Your task to perform on an android device: add a label to a message in the gmail app Image 0: 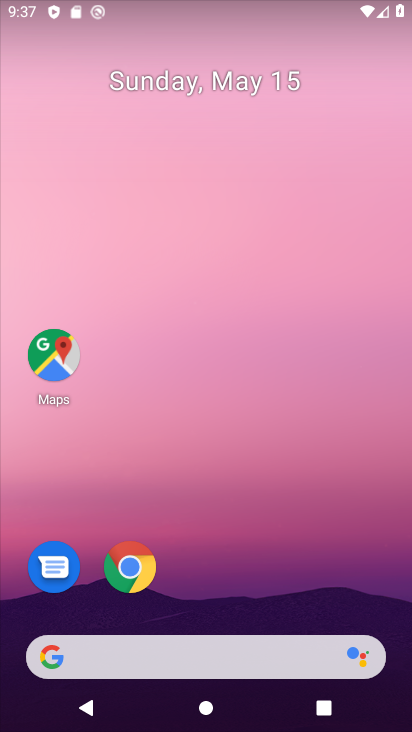
Step 0: press home button
Your task to perform on an android device: add a label to a message in the gmail app Image 1: 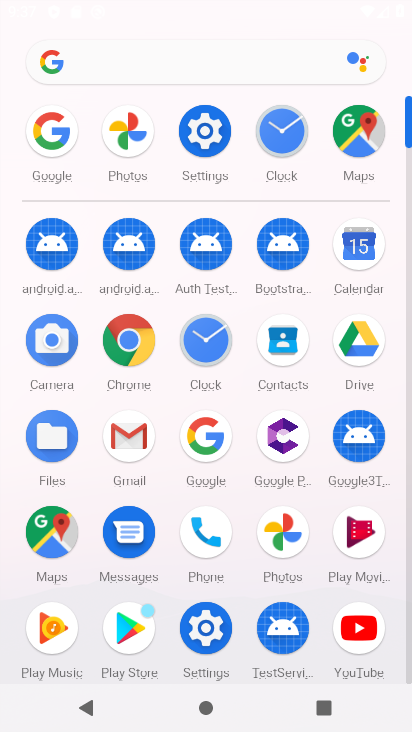
Step 1: drag from (273, 599) to (231, 94)
Your task to perform on an android device: add a label to a message in the gmail app Image 2: 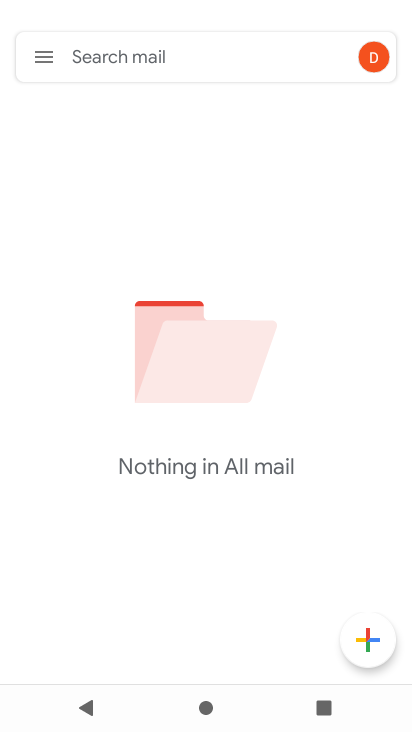
Step 2: click (128, 128)
Your task to perform on an android device: add a label to a message in the gmail app Image 3: 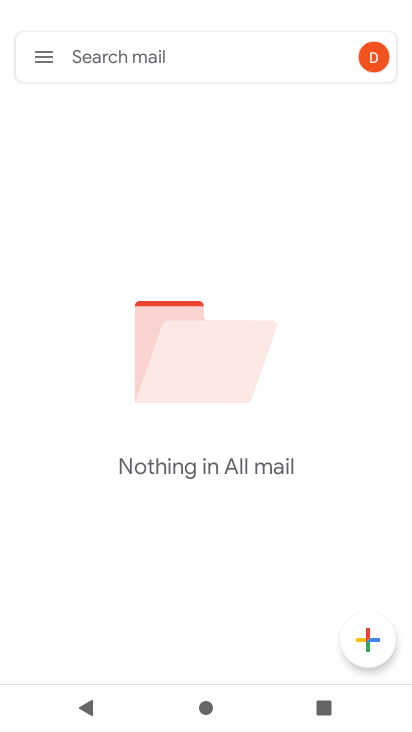
Step 3: click (43, 57)
Your task to perform on an android device: add a label to a message in the gmail app Image 4: 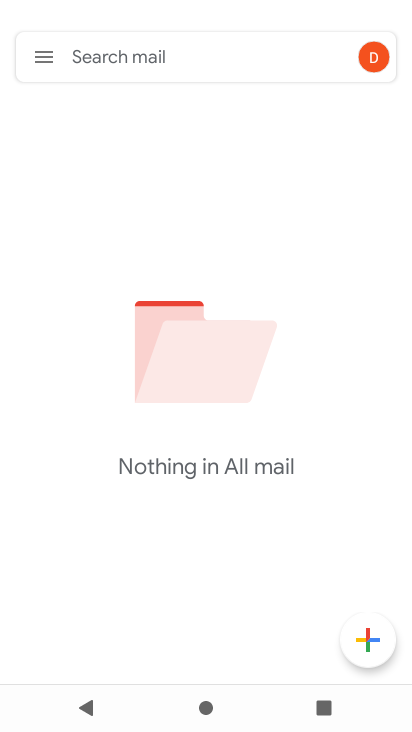
Step 4: click (146, 575)
Your task to perform on an android device: add a label to a message in the gmail app Image 5: 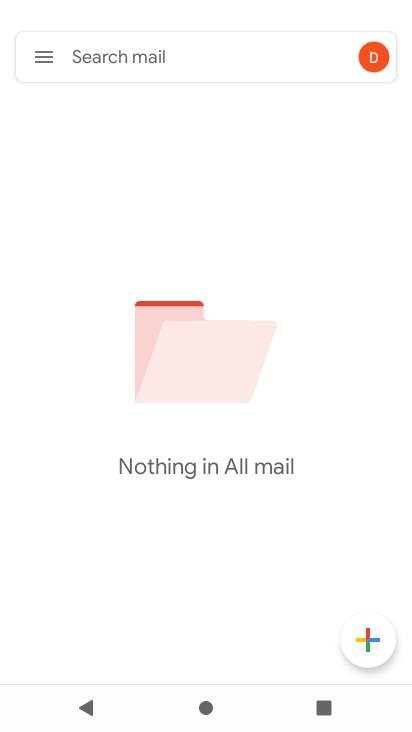
Step 5: task complete